Your task to perform on an android device: What's on my calendar today? Image 0: 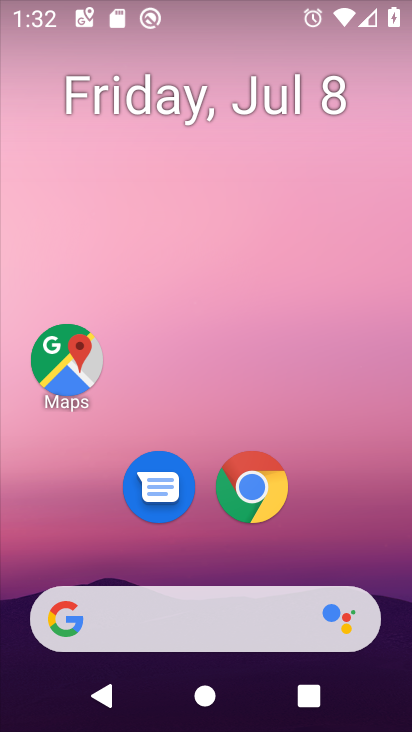
Step 0: drag from (363, 554) to (337, 134)
Your task to perform on an android device: What's on my calendar today? Image 1: 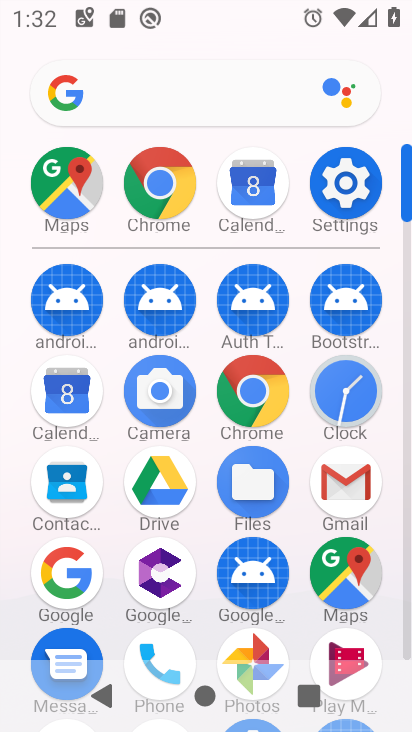
Step 1: click (76, 403)
Your task to perform on an android device: What's on my calendar today? Image 2: 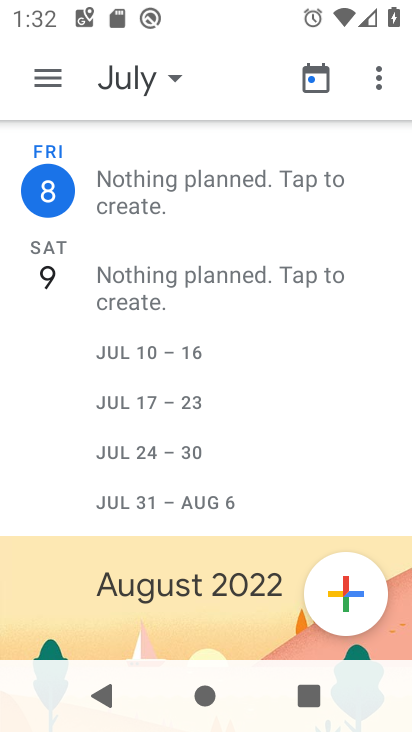
Step 2: click (204, 178)
Your task to perform on an android device: What's on my calendar today? Image 3: 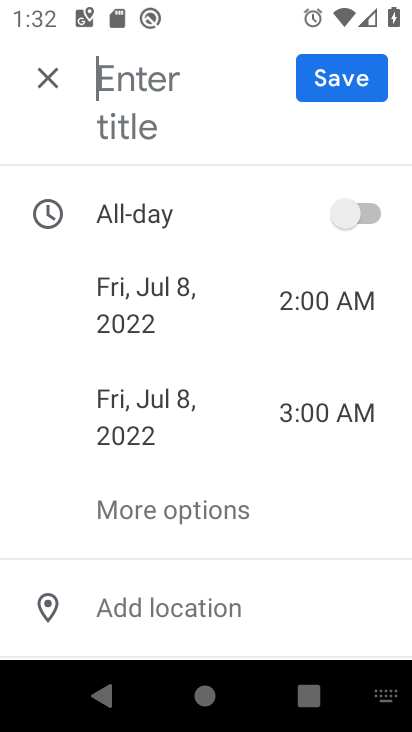
Step 3: task complete